Your task to perform on an android device: Empty the shopping cart on ebay.com. Image 0: 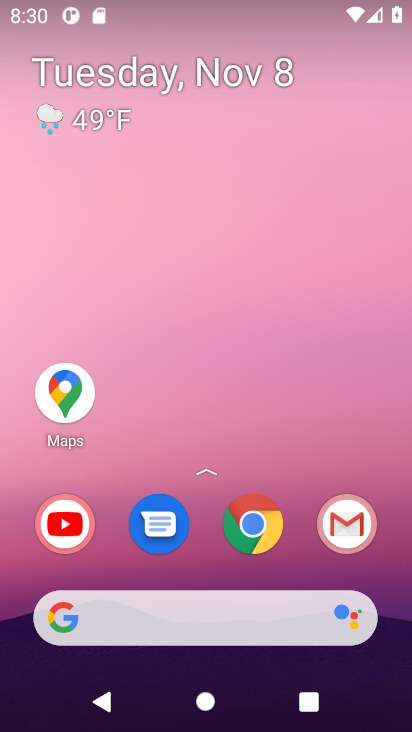
Step 0: click (260, 523)
Your task to perform on an android device: Empty the shopping cart on ebay.com. Image 1: 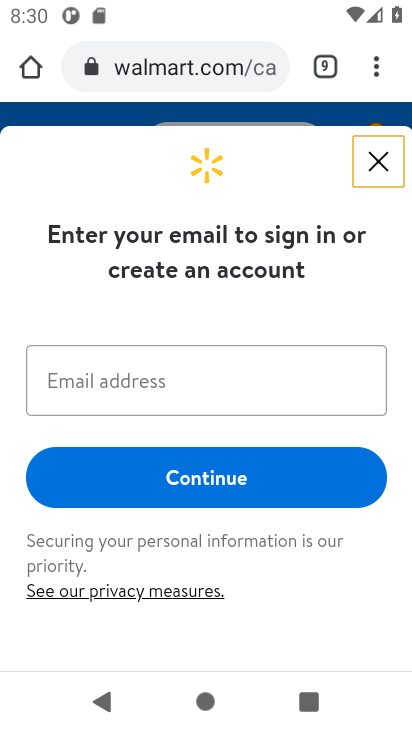
Step 1: click (185, 73)
Your task to perform on an android device: Empty the shopping cart on ebay.com. Image 2: 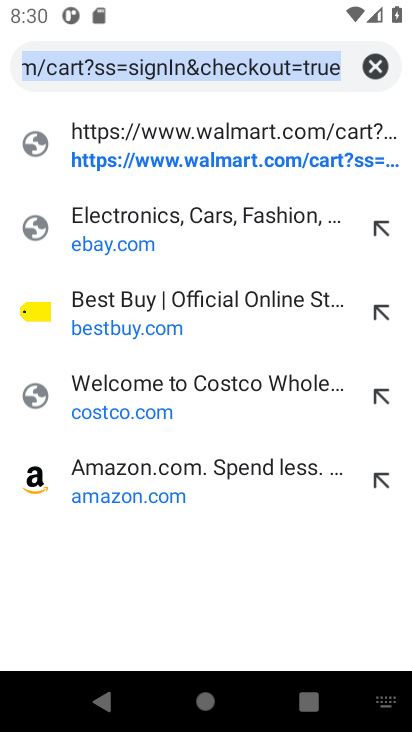
Step 2: click (101, 250)
Your task to perform on an android device: Empty the shopping cart on ebay.com. Image 3: 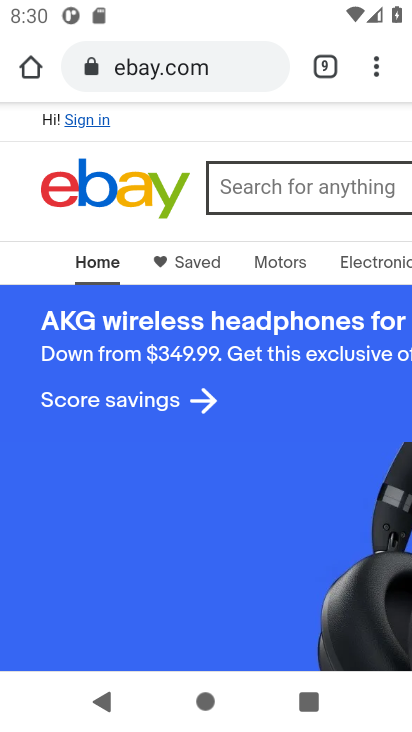
Step 3: drag from (357, 146) to (82, 155)
Your task to perform on an android device: Empty the shopping cart on ebay.com. Image 4: 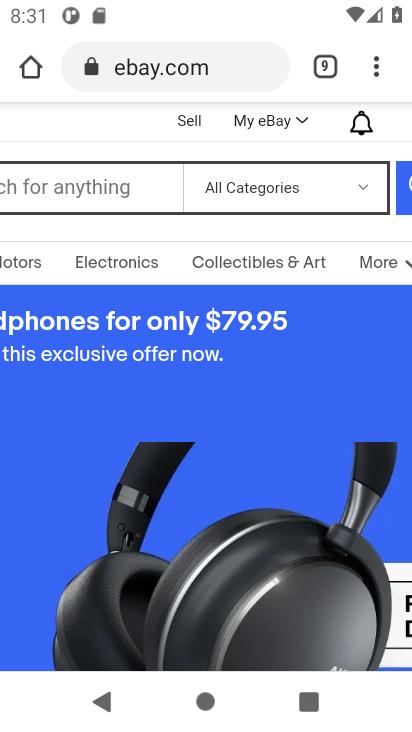
Step 4: drag from (363, 144) to (137, 160)
Your task to perform on an android device: Empty the shopping cart on ebay.com. Image 5: 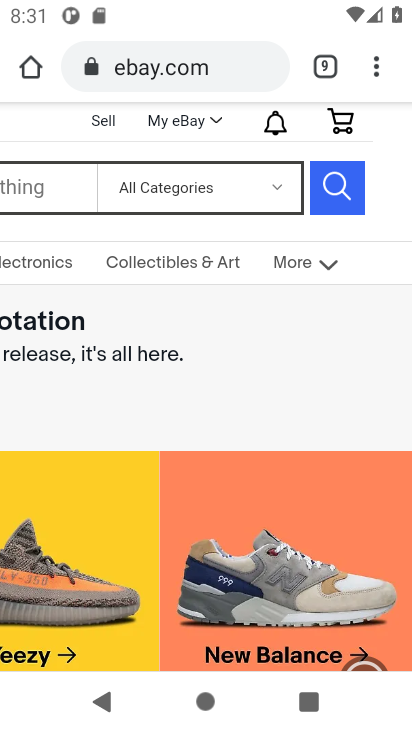
Step 5: click (345, 125)
Your task to perform on an android device: Empty the shopping cart on ebay.com. Image 6: 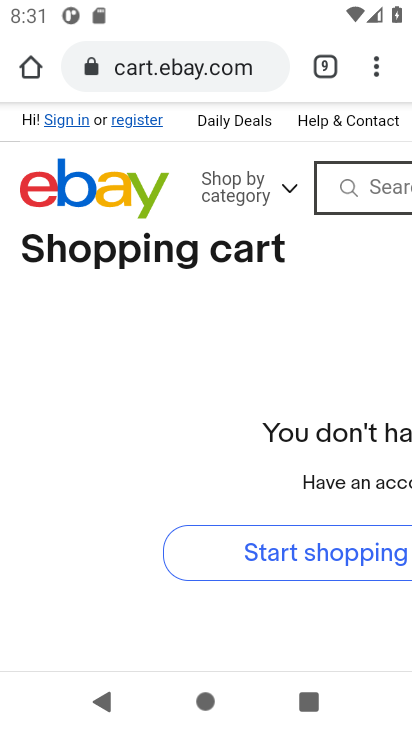
Step 6: task complete